Your task to perform on an android device: open chrome privacy settings Image 0: 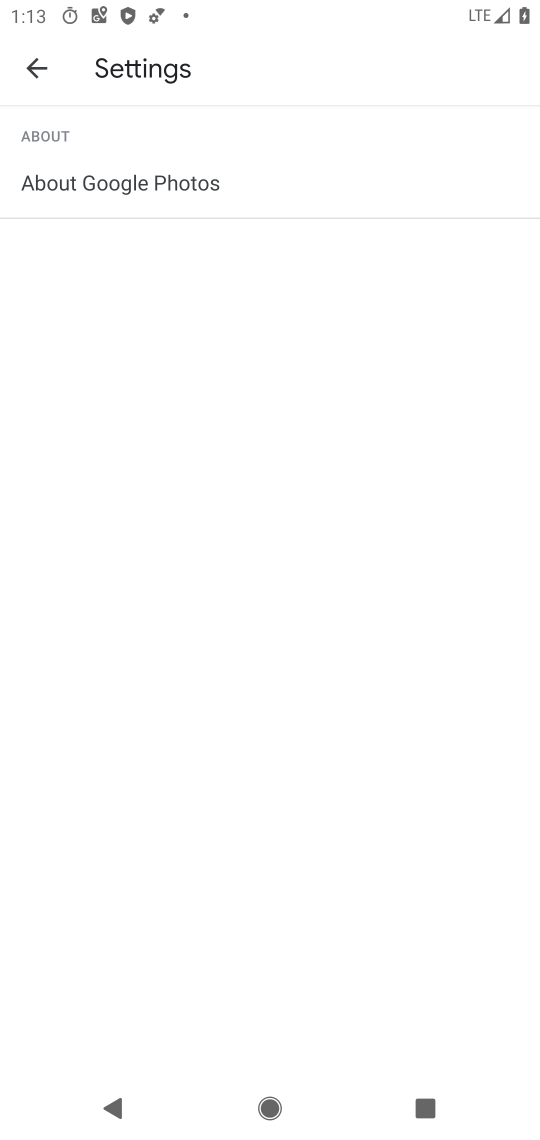
Step 0: press home button
Your task to perform on an android device: open chrome privacy settings Image 1: 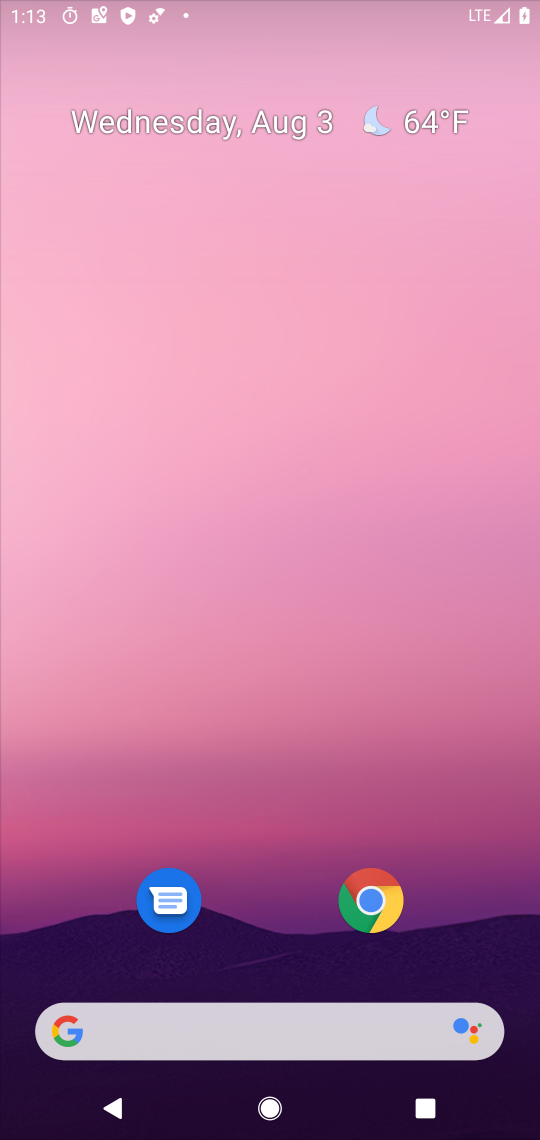
Step 1: drag from (357, 890) to (383, 784)
Your task to perform on an android device: open chrome privacy settings Image 2: 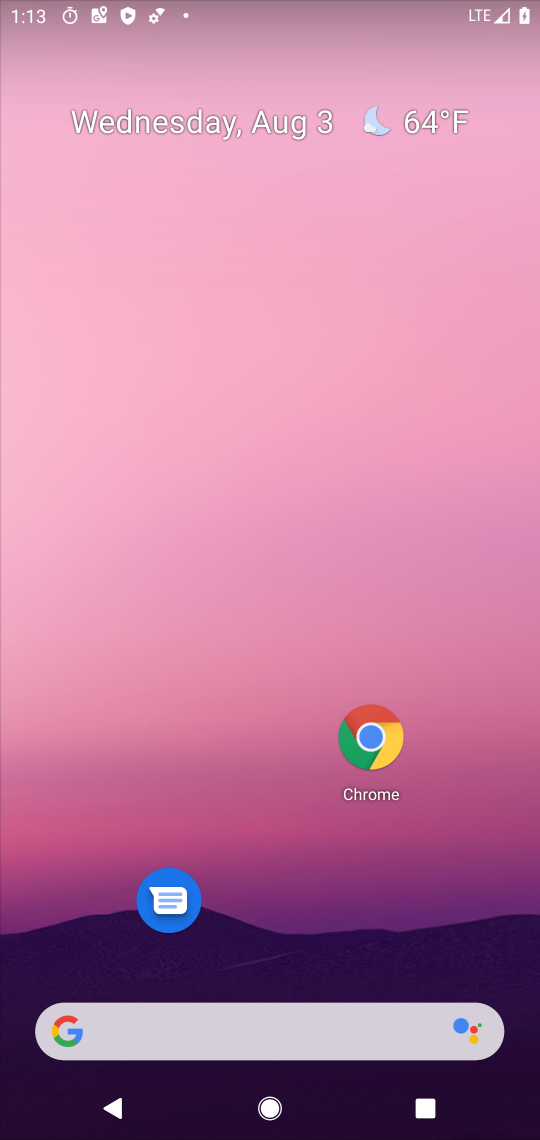
Step 2: drag from (280, 908) to (324, 148)
Your task to perform on an android device: open chrome privacy settings Image 3: 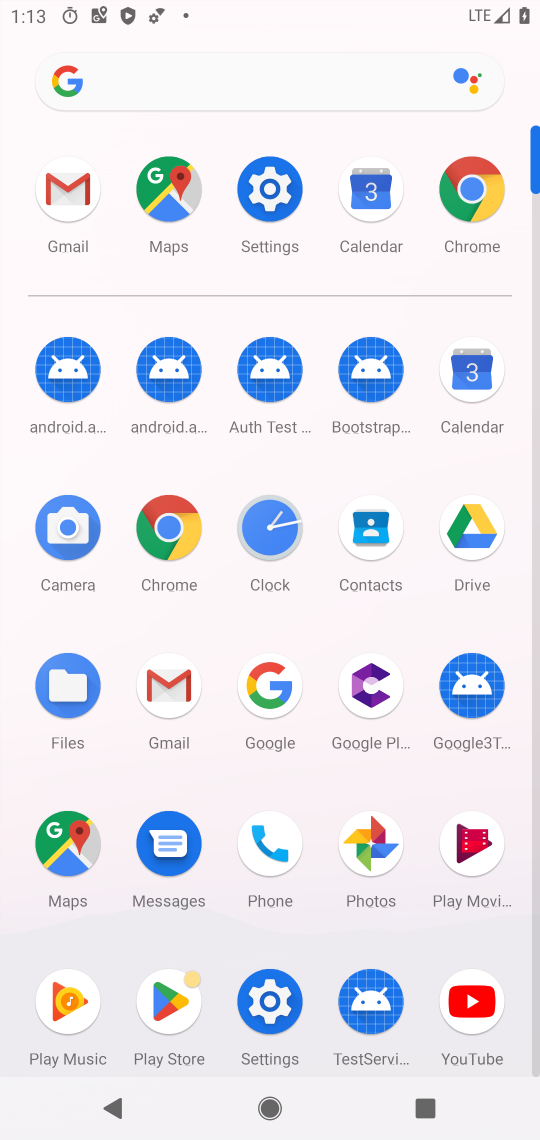
Step 3: click (173, 533)
Your task to perform on an android device: open chrome privacy settings Image 4: 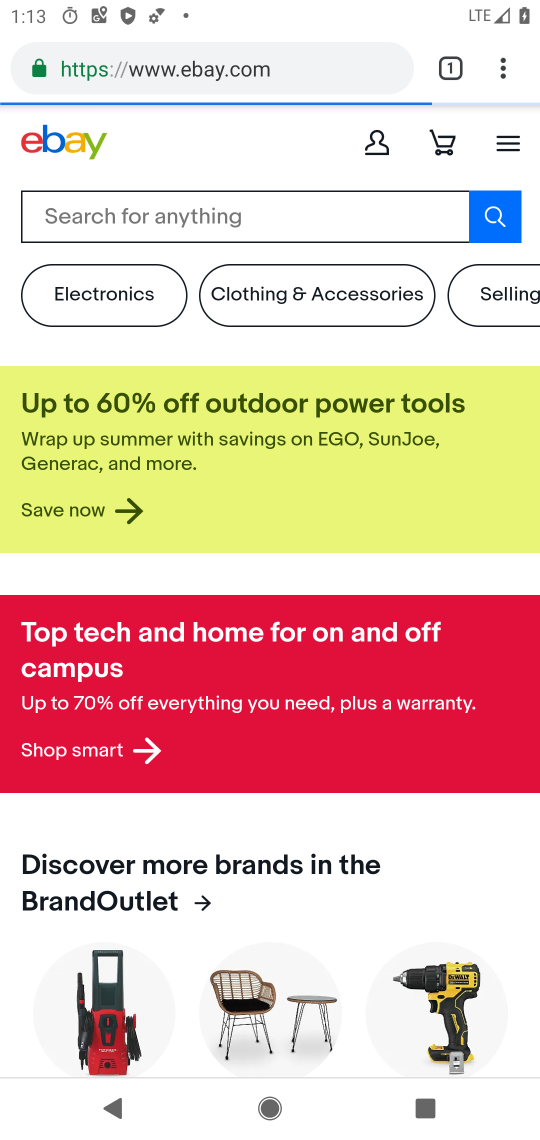
Step 4: drag from (505, 56) to (289, 832)
Your task to perform on an android device: open chrome privacy settings Image 5: 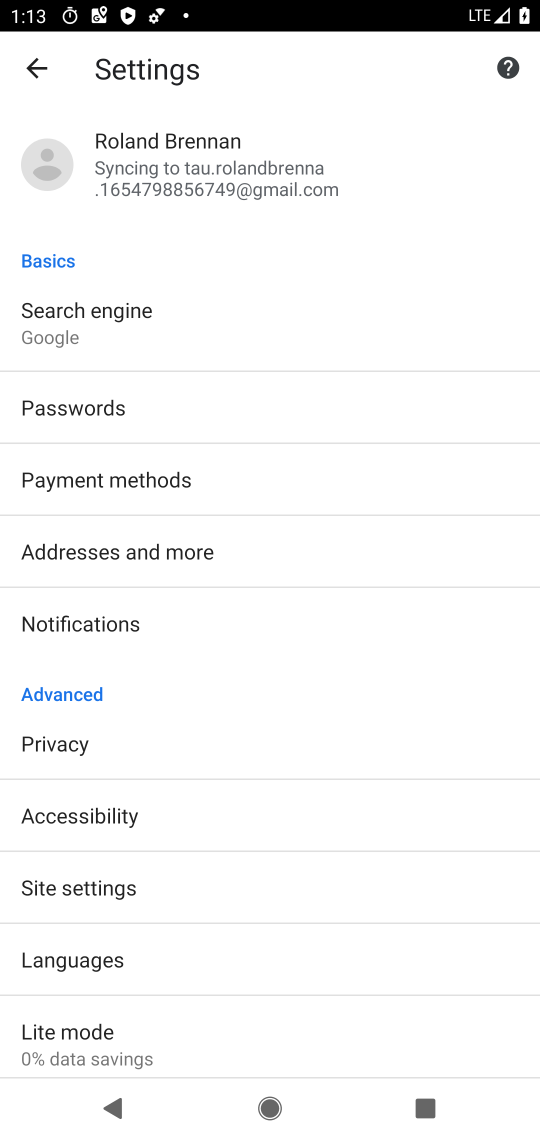
Step 5: drag from (292, 1005) to (333, 368)
Your task to perform on an android device: open chrome privacy settings Image 6: 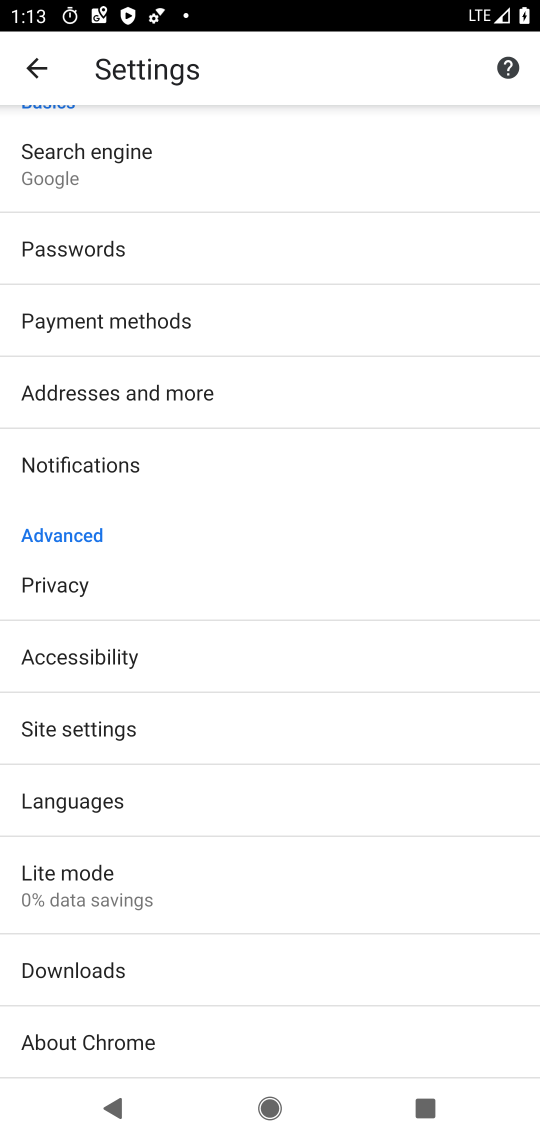
Step 6: click (62, 575)
Your task to perform on an android device: open chrome privacy settings Image 7: 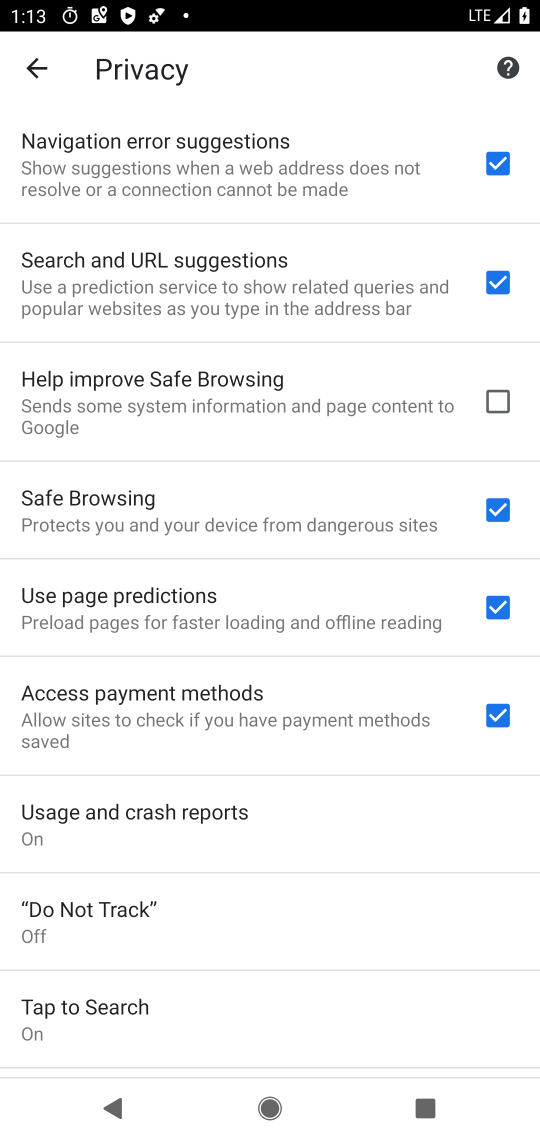
Step 7: task complete